Your task to perform on an android device: change the clock display to analog Image 0: 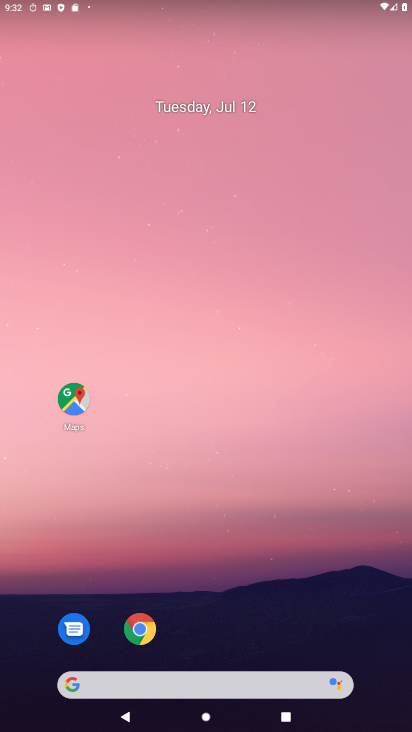
Step 0: drag from (337, 685) to (235, 169)
Your task to perform on an android device: change the clock display to analog Image 1: 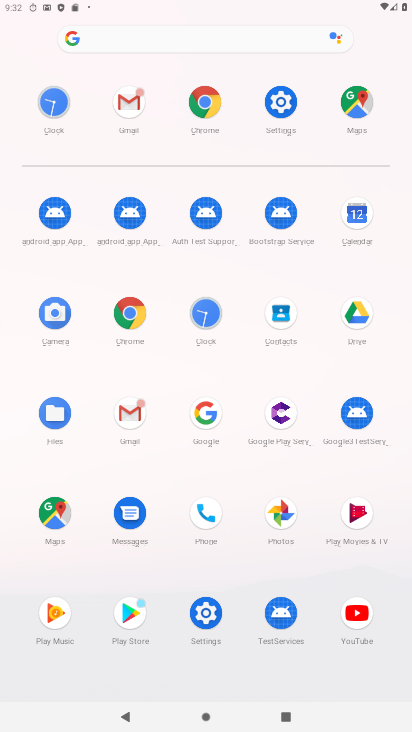
Step 1: click (206, 312)
Your task to perform on an android device: change the clock display to analog Image 2: 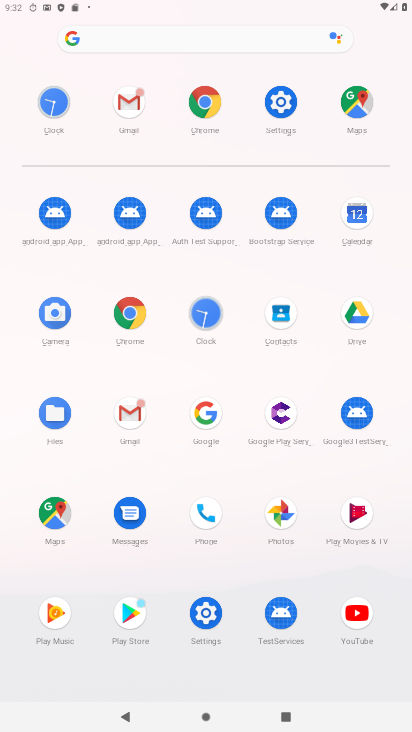
Step 2: click (204, 311)
Your task to perform on an android device: change the clock display to analog Image 3: 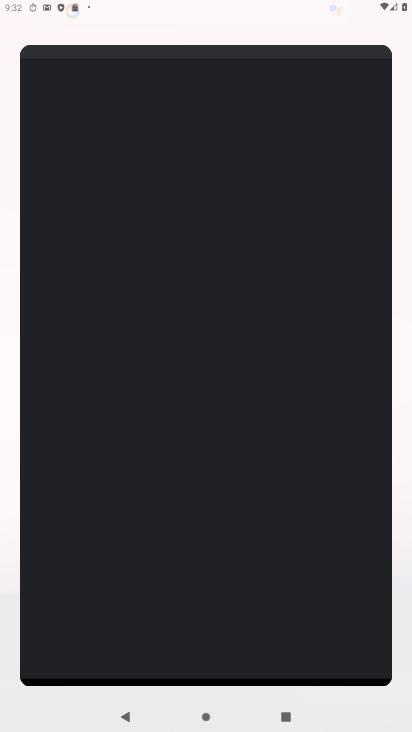
Step 3: click (203, 310)
Your task to perform on an android device: change the clock display to analog Image 4: 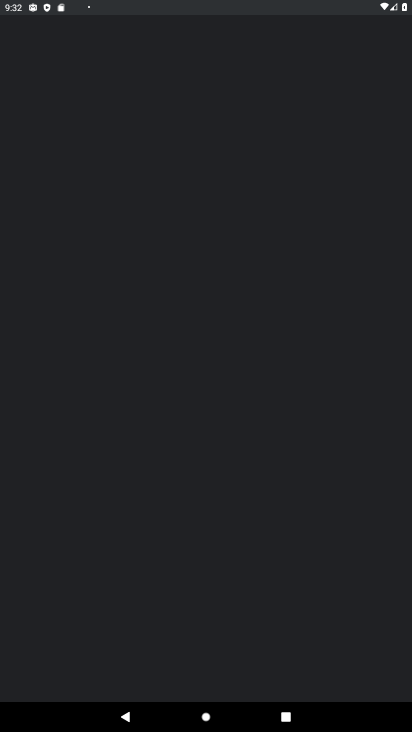
Step 4: click (203, 310)
Your task to perform on an android device: change the clock display to analog Image 5: 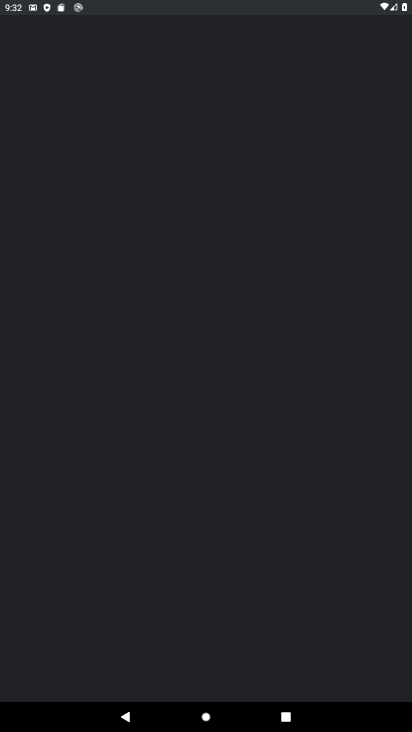
Step 5: click (202, 309)
Your task to perform on an android device: change the clock display to analog Image 6: 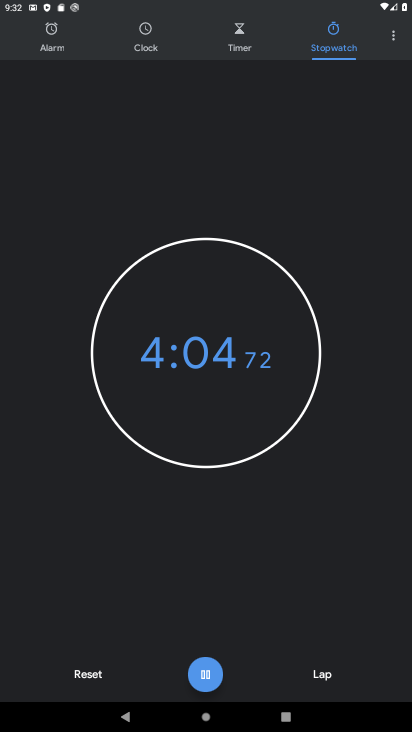
Step 6: click (399, 34)
Your task to perform on an android device: change the clock display to analog Image 7: 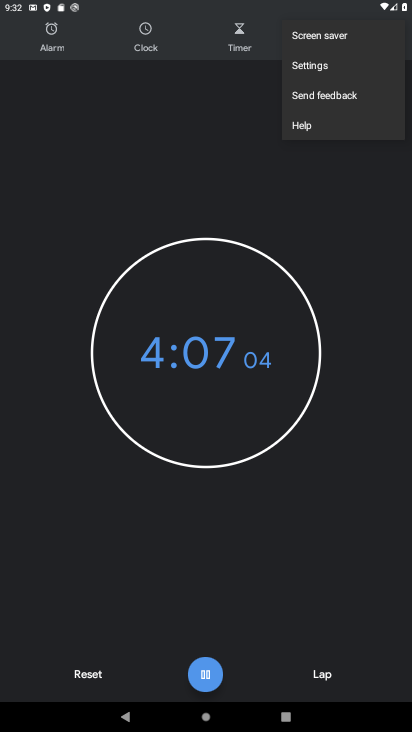
Step 7: click (199, 674)
Your task to perform on an android device: change the clock display to analog Image 8: 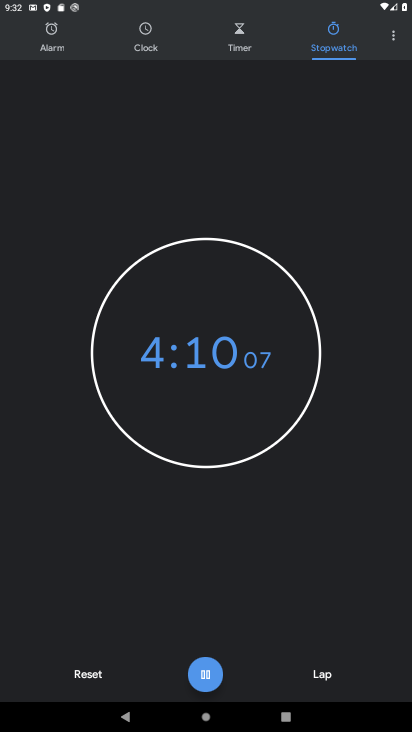
Step 8: click (214, 672)
Your task to perform on an android device: change the clock display to analog Image 9: 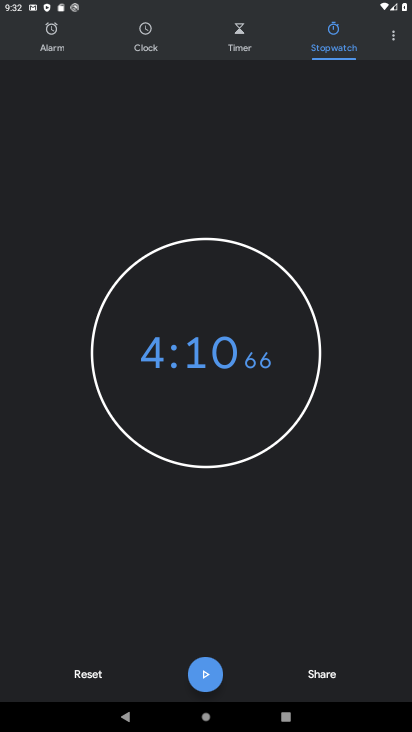
Step 9: click (403, 50)
Your task to perform on an android device: change the clock display to analog Image 10: 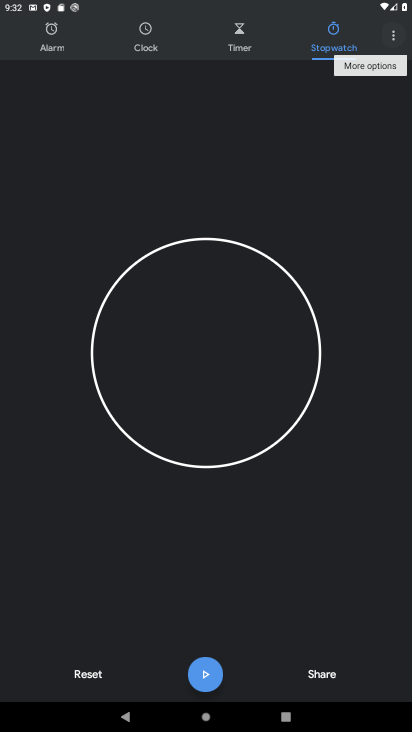
Step 10: click (396, 34)
Your task to perform on an android device: change the clock display to analog Image 11: 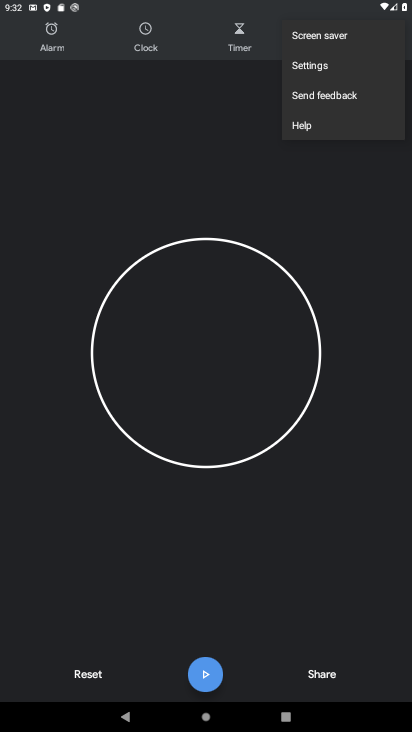
Step 11: click (317, 67)
Your task to perform on an android device: change the clock display to analog Image 12: 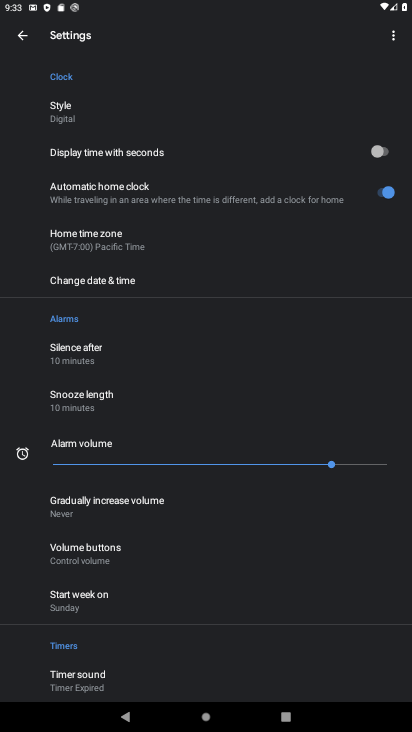
Step 12: click (64, 118)
Your task to perform on an android device: change the clock display to analog Image 13: 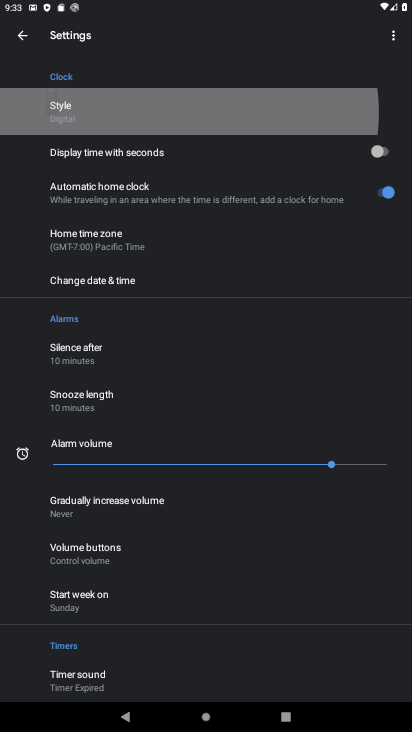
Step 13: click (75, 115)
Your task to perform on an android device: change the clock display to analog Image 14: 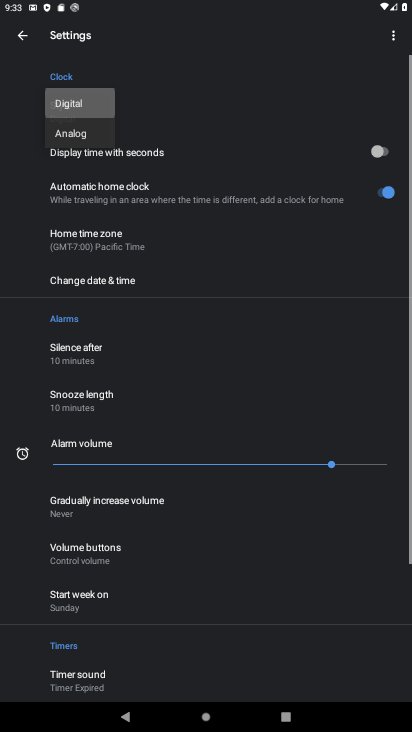
Step 14: click (75, 115)
Your task to perform on an android device: change the clock display to analog Image 15: 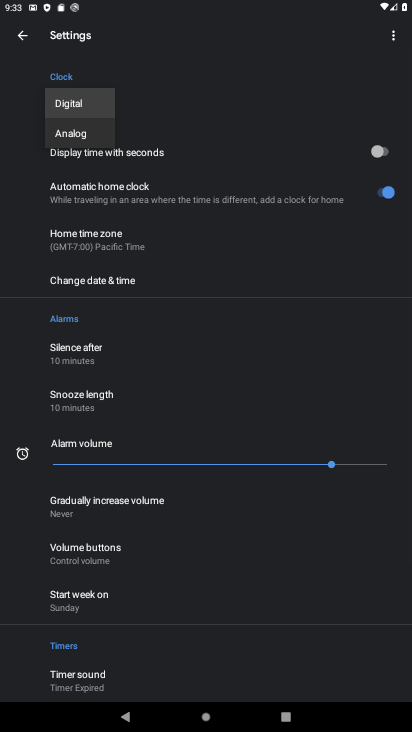
Step 15: click (76, 136)
Your task to perform on an android device: change the clock display to analog Image 16: 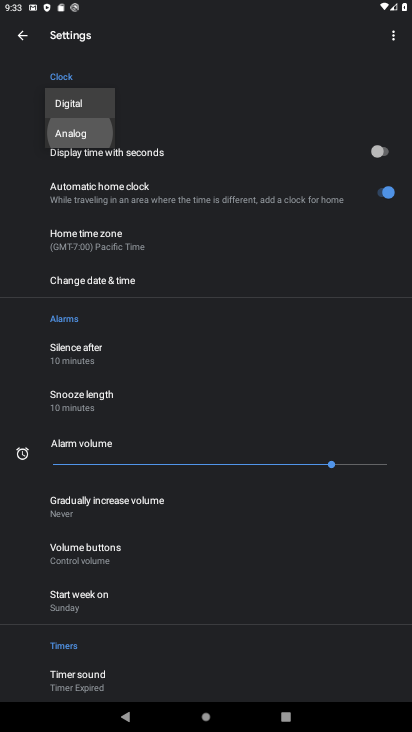
Step 16: click (76, 136)
Your task to perform on an android device: change the clock display to analog Image 17: 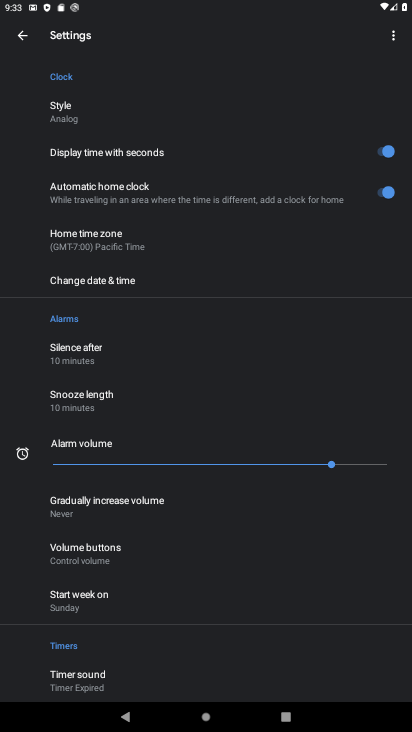
Step 17: task complete